Your task to perform on an android device: Search for sushi restaurants on Maps Image 0: 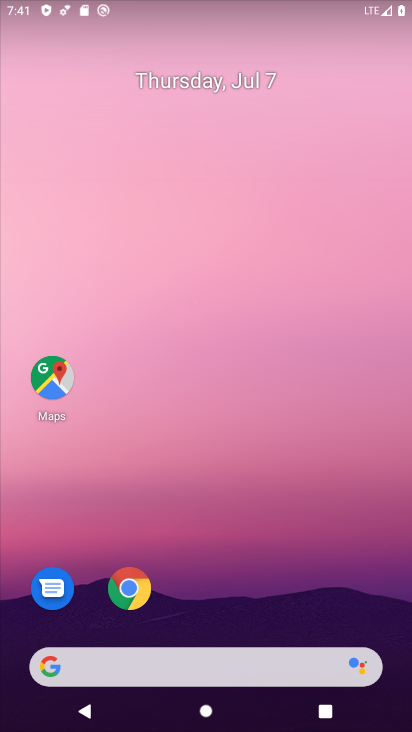
Step 0: drag from (188, 642) to (183, 228)
Your task to perform on an android device: Search for sushi restaurants on Maps Image 1: 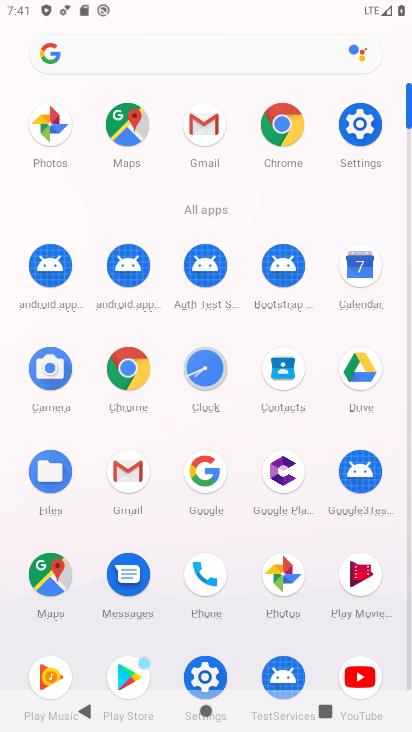
Step 1: click (58, 573)
Your task to perform on an android device: Search for sushi restaurants on Maps Image 2: 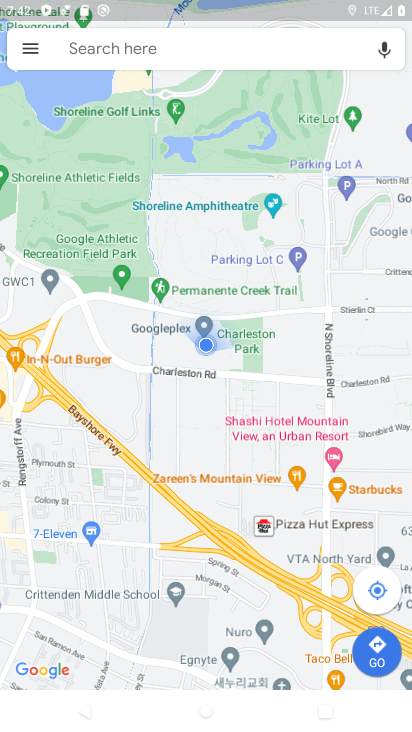
Step 2: click (227, 33)
Your task to perform on an android device: Search for sushi restaurants on Maps Image 3: 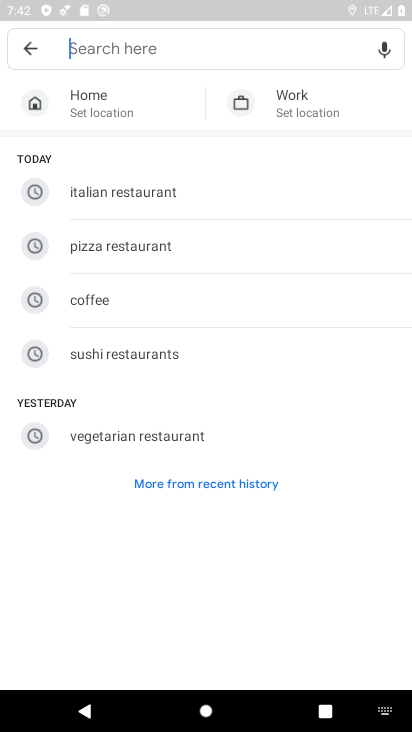
Step 3: type " sushi restaurants "
Your task to perform on an android device: Search for sushi restaurants on Maps Image 4: 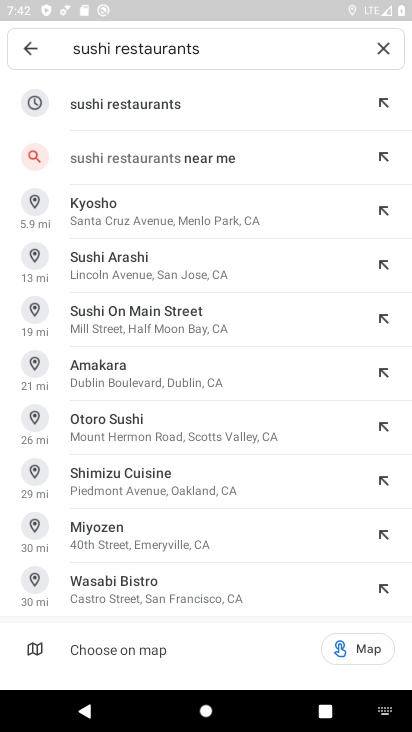
Step 4: click (173, 98)
Your task to perform on an android device: Search for sushi restaurants on Maps Image 5: 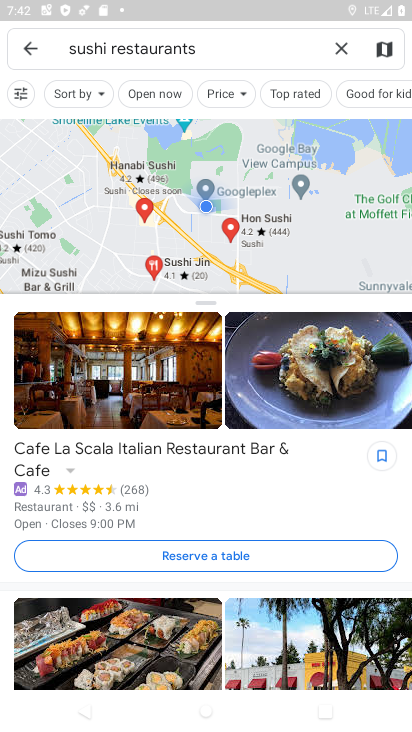
Step 5: task complete